Your task to perform on an android device: change notifications settings Image 0: 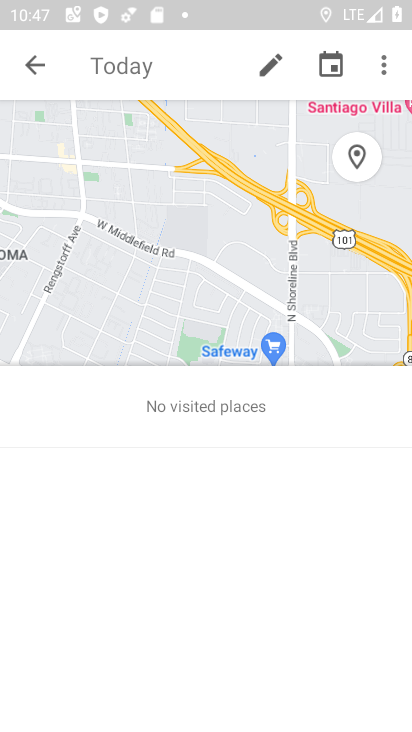
Step 0: press home button
Your task to perform on an android device: change notifications settings Image 1: 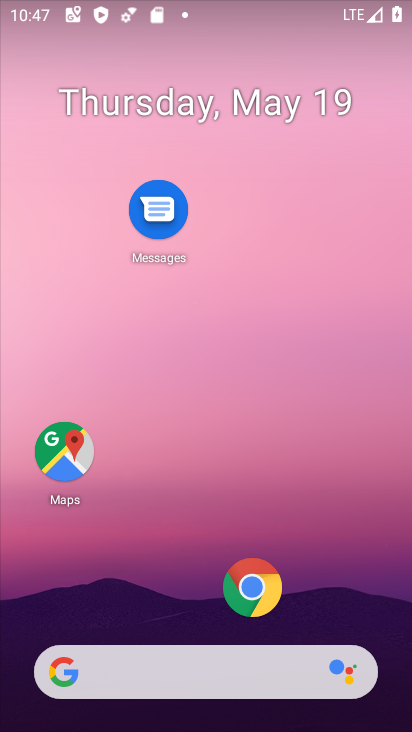
Step 1: drag from (205, 264) to (216, 171)
Your task to perform on an android device: change notifications settings Image 2: 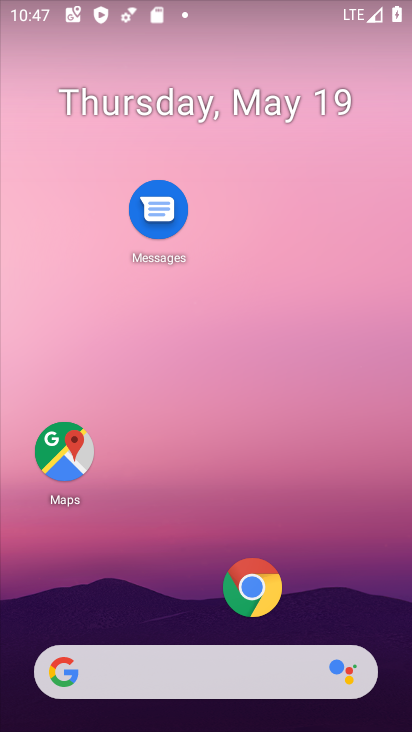
Step 2: drag from (177, 630) to (237, 113)
Your task to perform on an android device: change notifications settings Image 3: 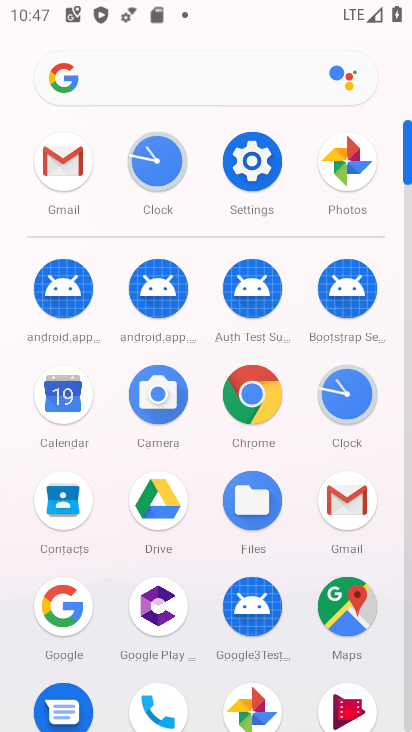
Step 3: click (255, 152)
Your task to perform on an android device: change notifications settings Image 4: 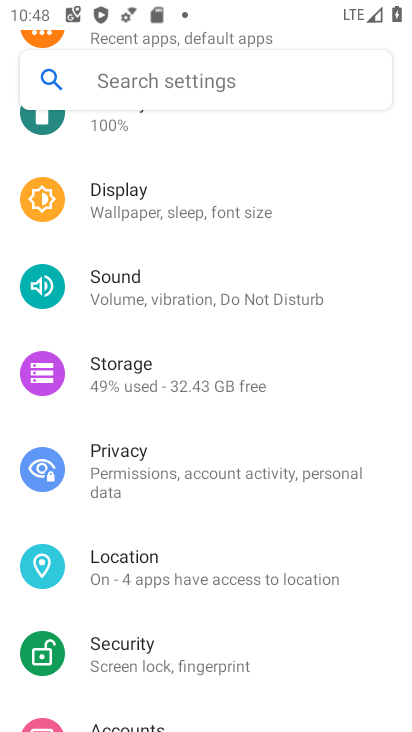
Step 4: drag from (255, 152) to (214, 591)
Your task to perform on an android device: change notifications settings Image 5: 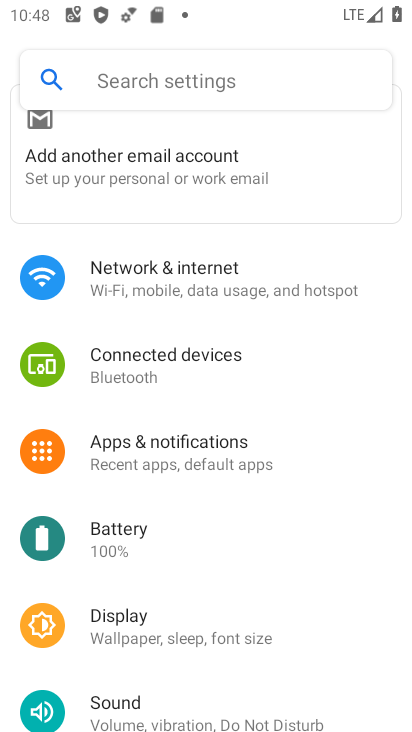
Step 5: click (153, 449)
Your task to perform on an android device: change notifications settings Image 6: 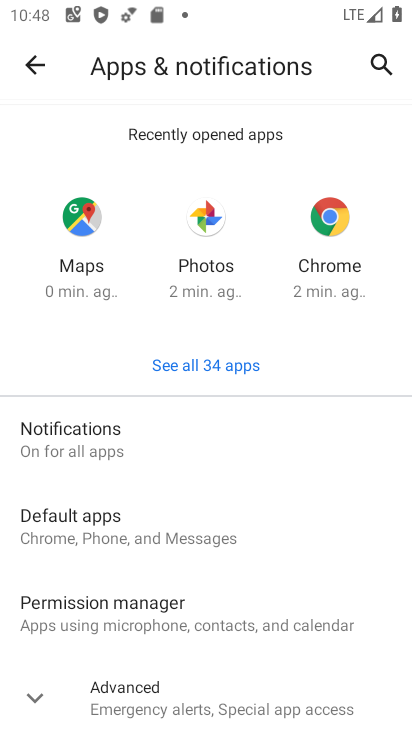
Step 6: task complete